Your task to perform on an android device: turn off translation in the chrome app Image 0: 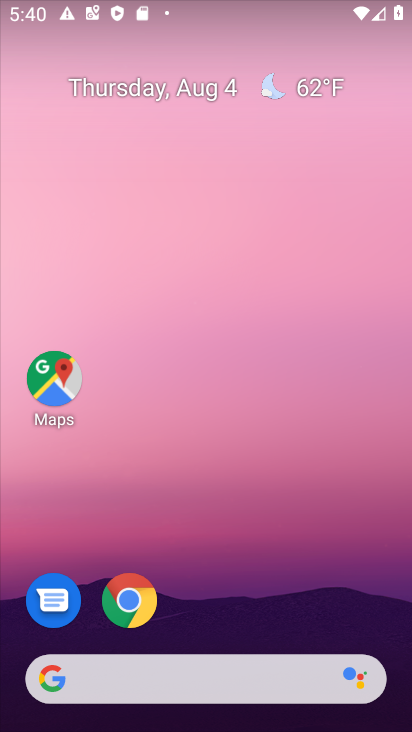
Step 0: click (118, 588)
Your task to perform on an android device: turn off translation in the chrome app Image 1: 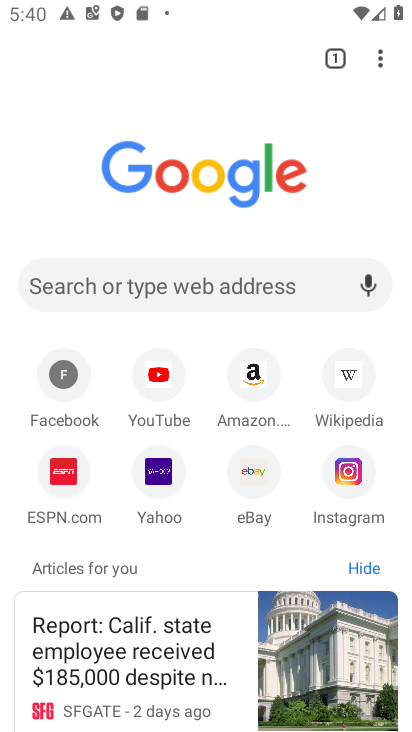
Step 1: drag from (373, 59) to (160, 488)
Your task to perform on an android device: turn off translation in the chrome app Image 2: 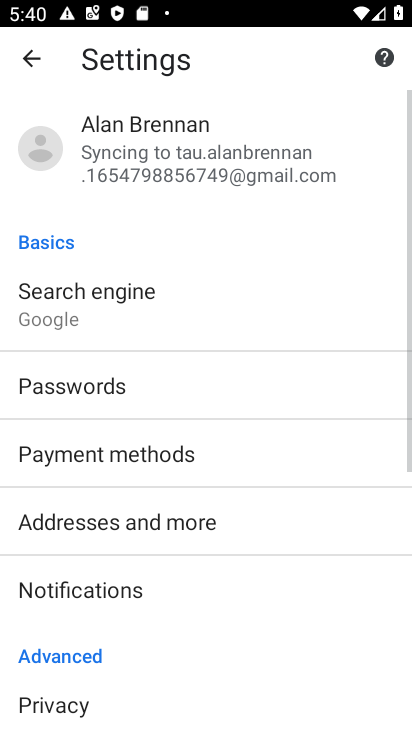
Step 2: drag from (125, 704) to (292, 37)
Your task to perform on an android device: turn off translation in the chrome app Image 3: 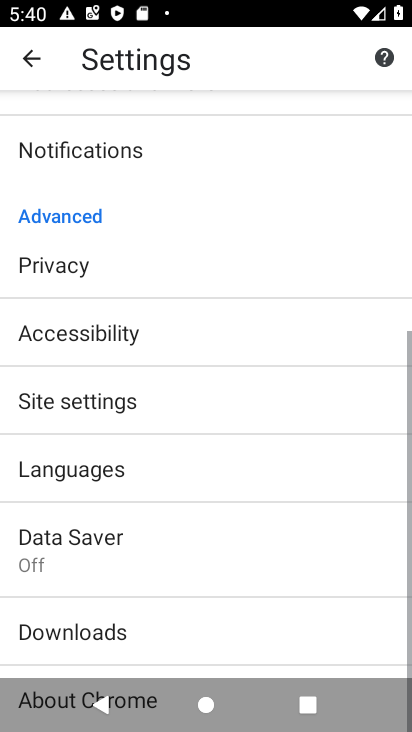
Step 3: click (114, 399)
Your task to perform on an android device: turn off translation in the chrome app Image 4: 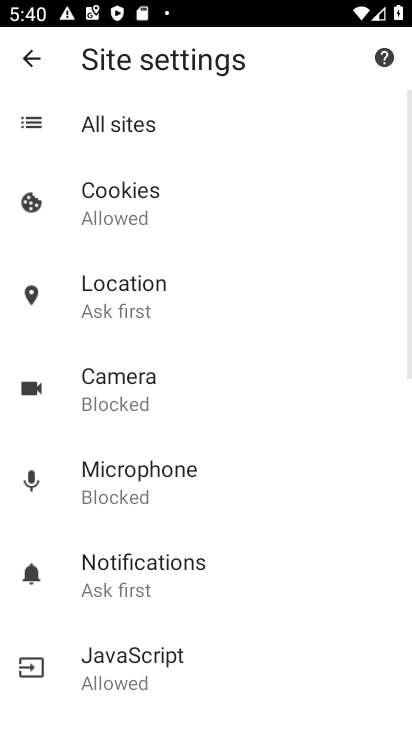
Step 4: click (21, 55)
Your task to perform on an android device: turn off translation in the chrome app Image 5: 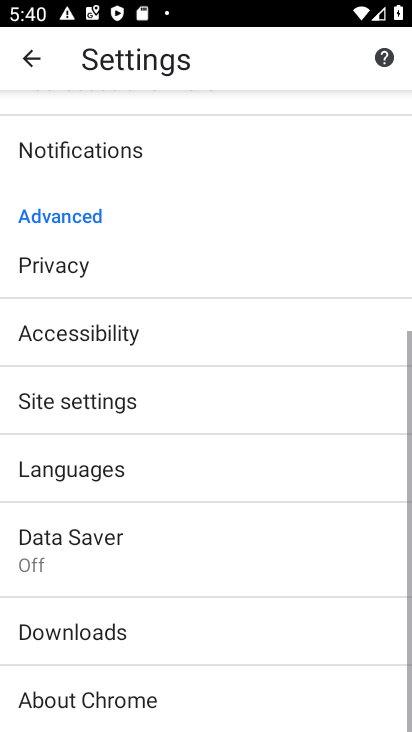
Step 5: click (84, 478)
Your task to perform on an android device: turn off translation in the chrome app Image 6: 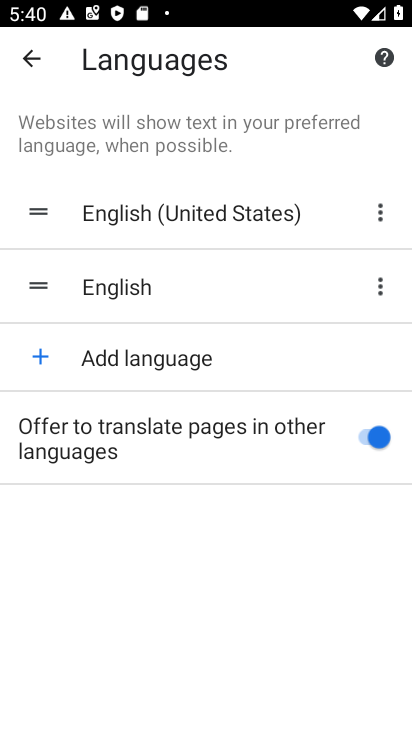
Step 6: click (371, 431)
Your task to perform on an android device: turn off translation in the chrome app Image 7: 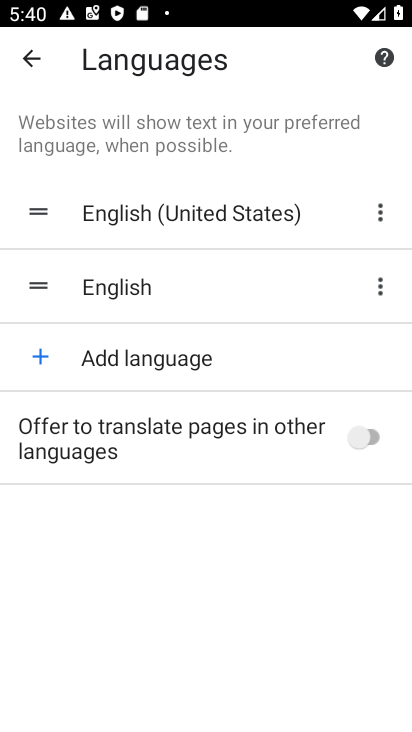
Step 7: task complete